Your task to perform on an android device: Open sound settings Image 0: 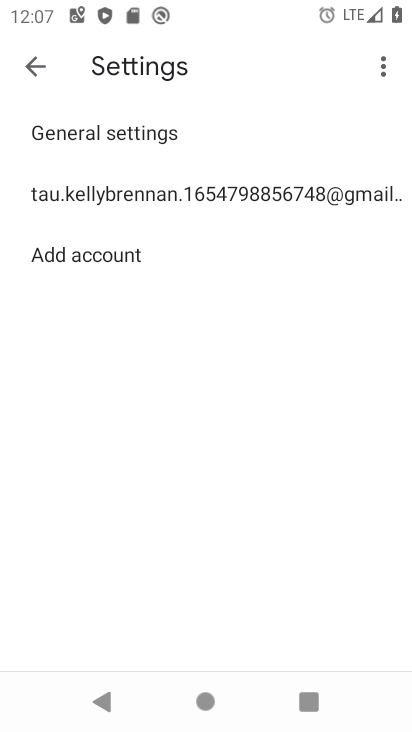
Step 0: press home button
Your task to perform on an android device: Open sound settings Image 1: 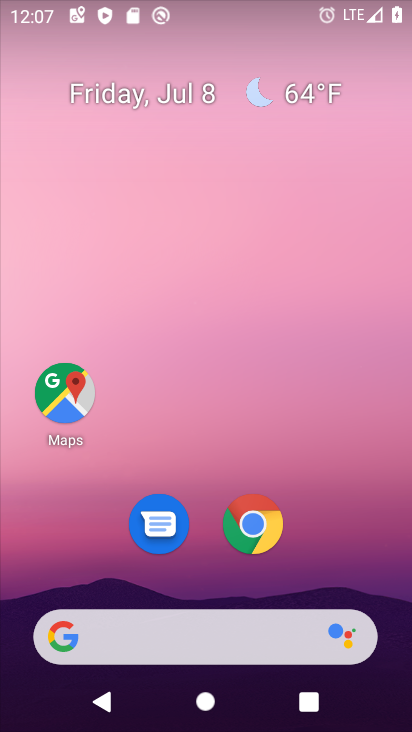
Step 1: drag from (220, 457) to (212, 2)
Your task to perform on an android device: Open sound settings Image 2: 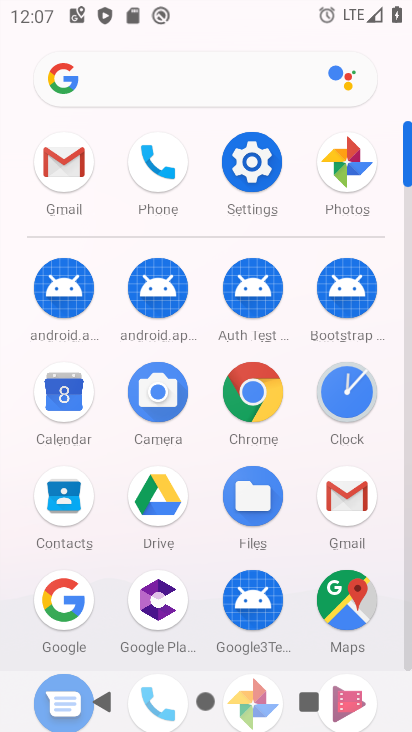
Step 2: click (255, 172)
Your task to perform on an android device: Open sound settings Image 3: 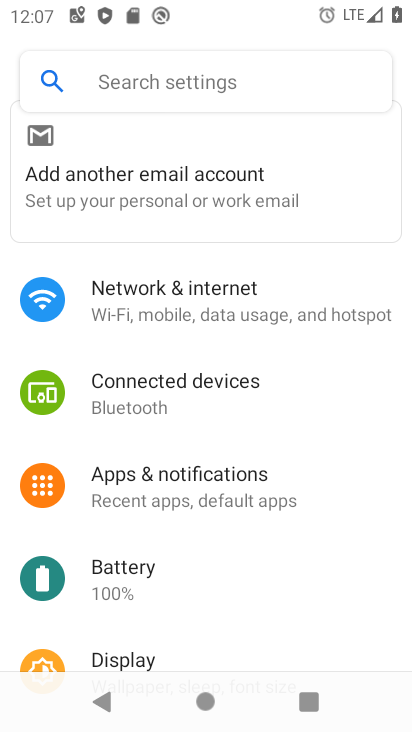
Step 3: drag from (239, 522) to (302, 1)
Your task to perform on an android device: Open sound settings Image 4: 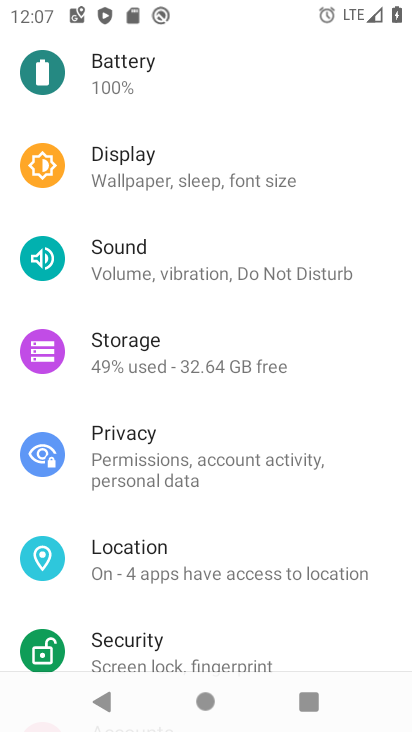
Step 4: click (193, 261)
Your task to perform on an android device: Open sound settings Image 5: 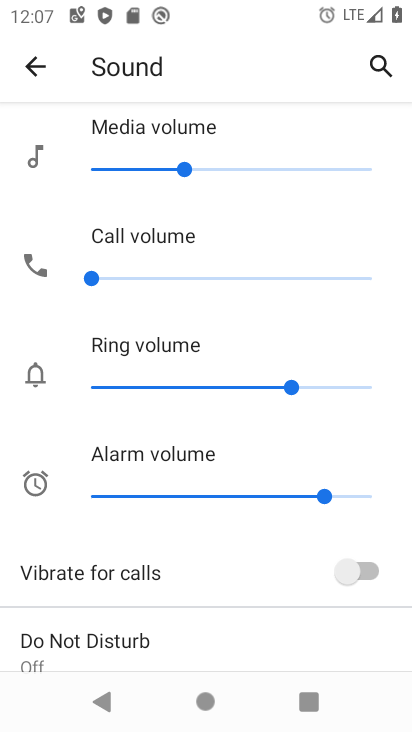
Step 5: task complete